Your task to perform on an android device: Go to CNN.com Image 0: 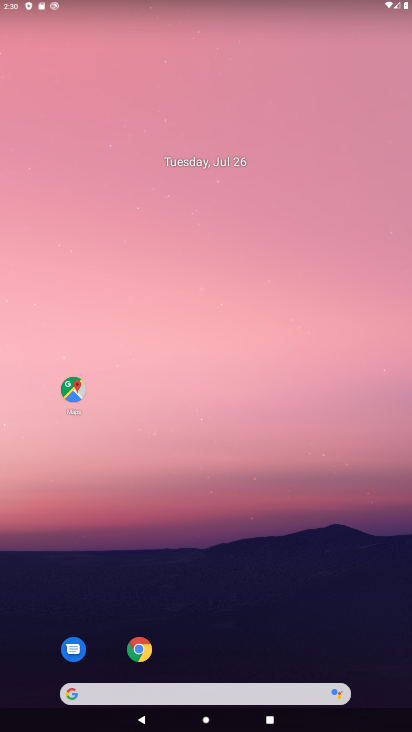
Step 0: click (128, 697)
Your task to perform on an android device: Go to CNN.com Image 1: 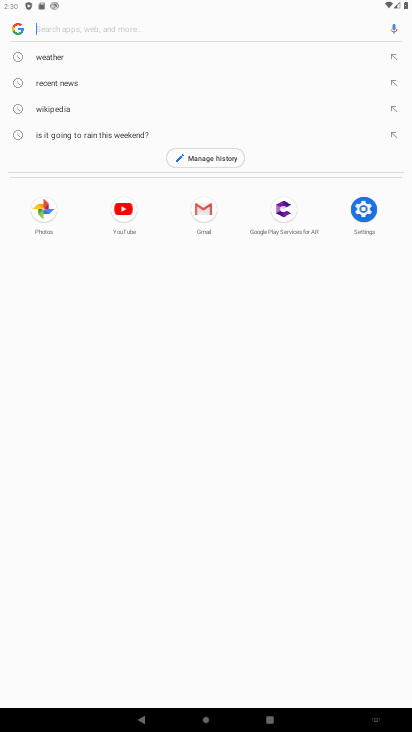
Step 1: type "cnn"
Your task to perform on an android device: Go to CNN.com Image 2: 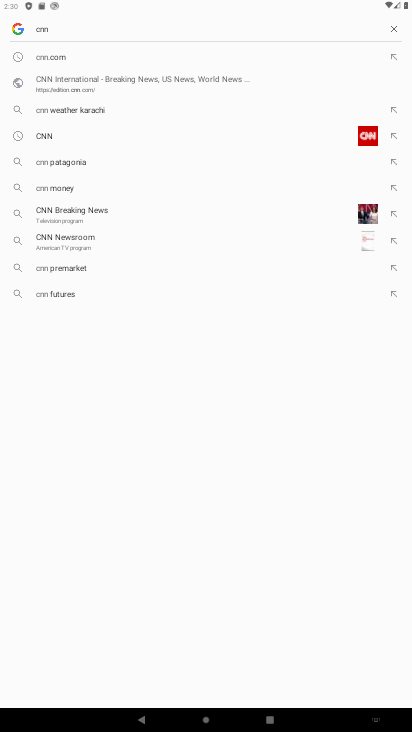
Step 2: click (61, 53)
Your task to perform on an android device: Go to CNN.com Image 3: 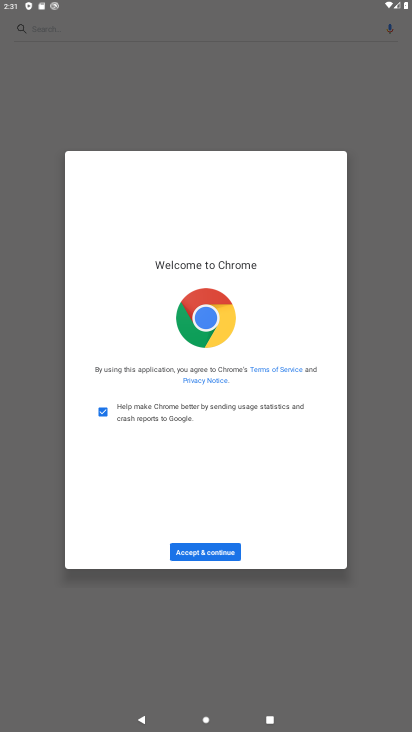
Step 3: click (208, 557)
Your task to perform on an android device: Go to CNN.com Image 4: 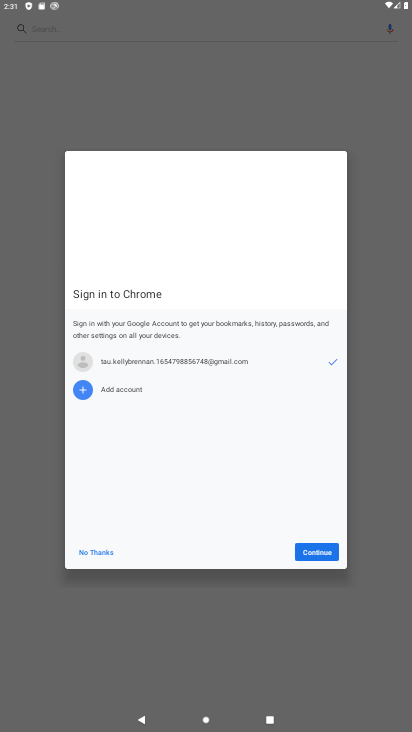
Step 4: click (322, 553)
Your task to perform on an android device: Go to CNN.com Image 5: 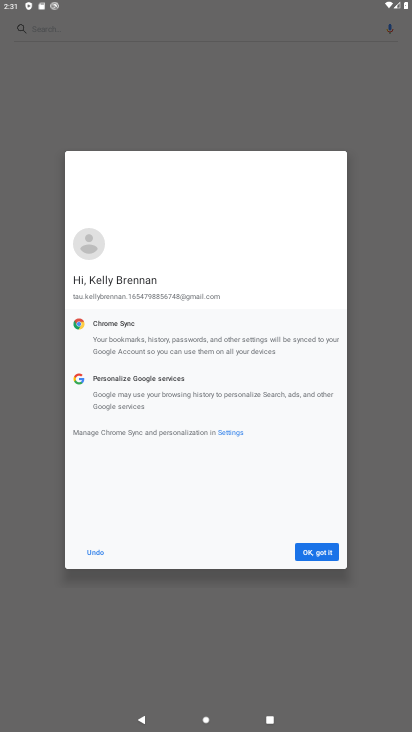
Step 5: click (322, 553)
Your task to perform on an android device: Go to CNN.com Image 6: 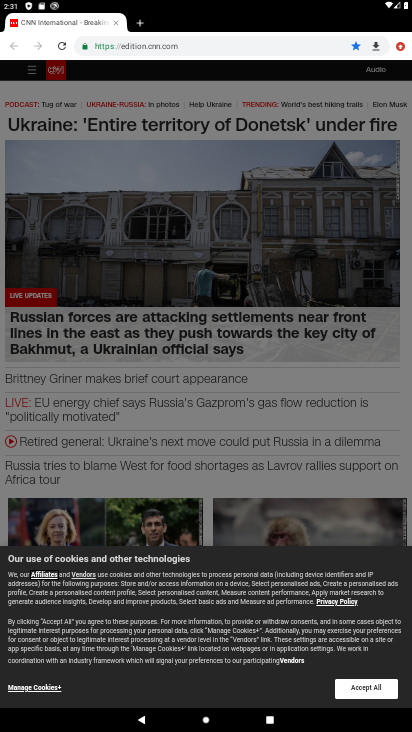
Step 6: task complete